Your task to perform on an android device: turn off priority inbox in the gmail app Image 0: 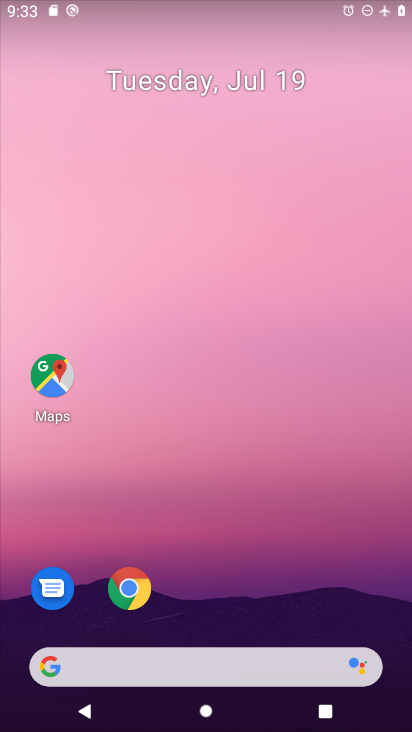
Step 0: drag from (315, 583) to (289, 56)
Your task to perform on an android device: turn off priority inbox in the gmail app Image 1: 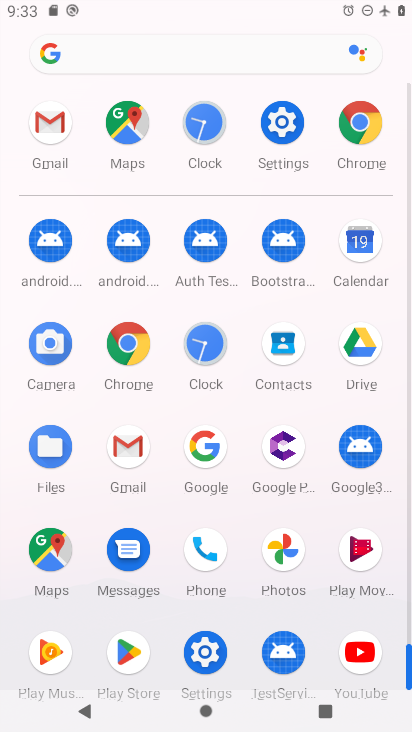
Step 1: click (136, 448)
Your task to perform on an android device: turn off priority inbox in the gmail app Image 2: 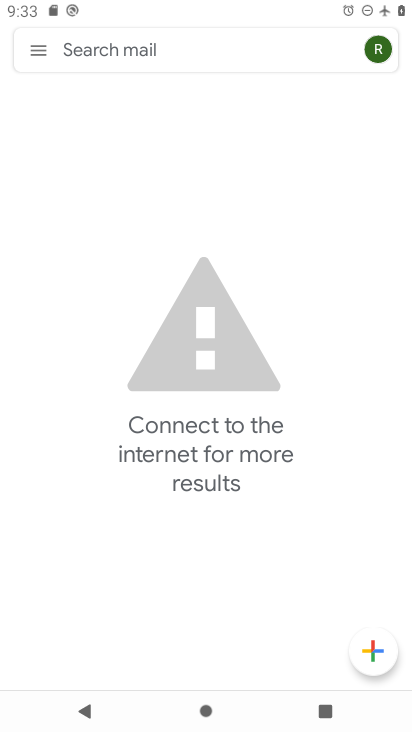
Step 2: click (40, 59)
Your task to perform on an android device: turn off priority inbox in the gmail app Image 3: 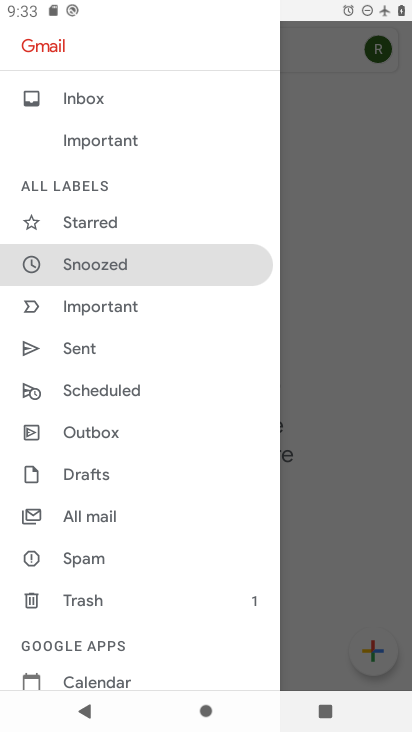
Step 3: drag from (173, 446) to (183, 313)
Your task to perform on an android device: turn off priority inbox in the gmail app Image 4: 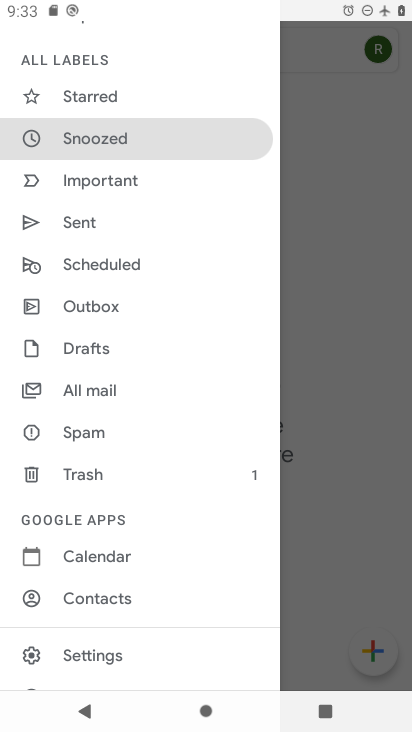
Step 4: drag from (187, 470) to (184, 313)
Your task to perform on an android device: turn off priority inbox in the gmail app Image 5: 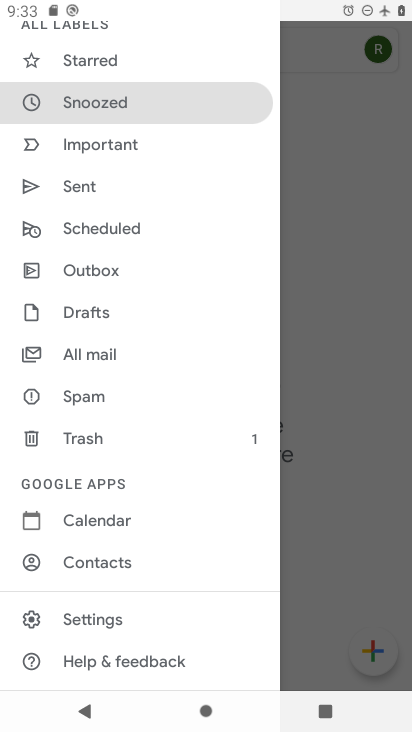
Step 5: click (136, 610)
Your task to perform on an android device: turn off priority inbox in the gmail app Image 6: 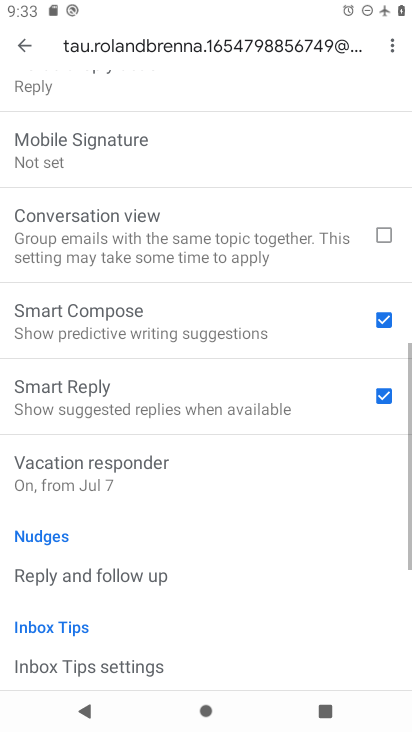
Step 6: task complete